Your task to perform on an android device: toggle translation in the chrome app Image 0: 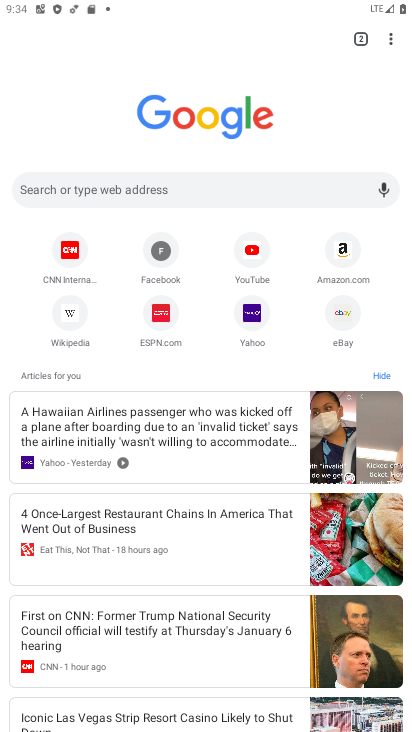
Step 0: press home button
Your task to perform on an android device: toggle translation in the chrome app Image 1: 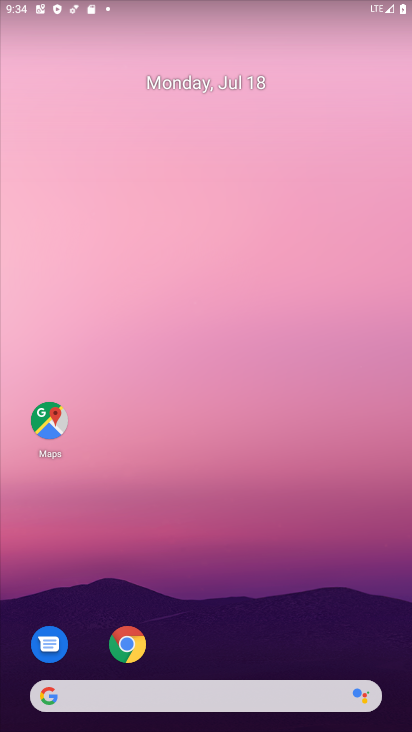
Step 1: drag from (219, 663) to (69, 0)
Your task to perform on an android device: toggle translation in the chrome app Image 2: 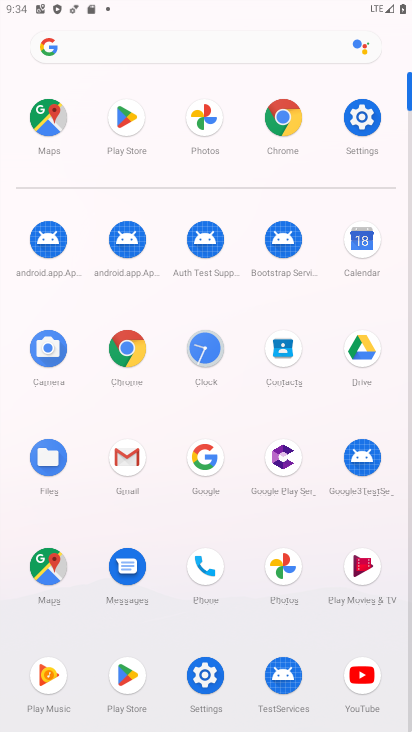
Step 2: click (275, 131)
Your task to perform on an android device: toggle translation in the chrome app Image 3: 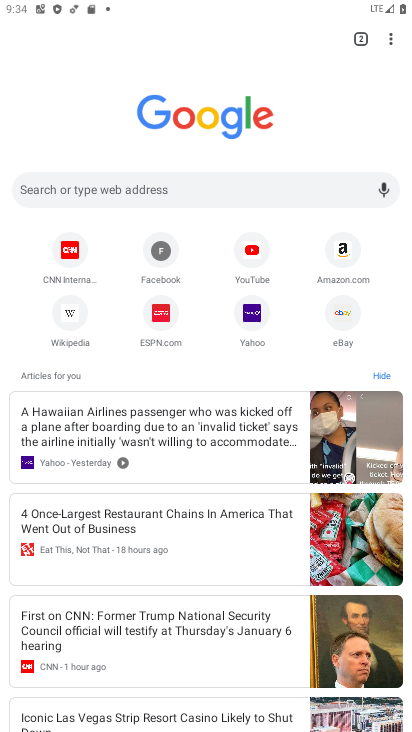
Step 3: click (384, 38)
Your task to perform on an android device: toggle translation in the chrome app Image 4: 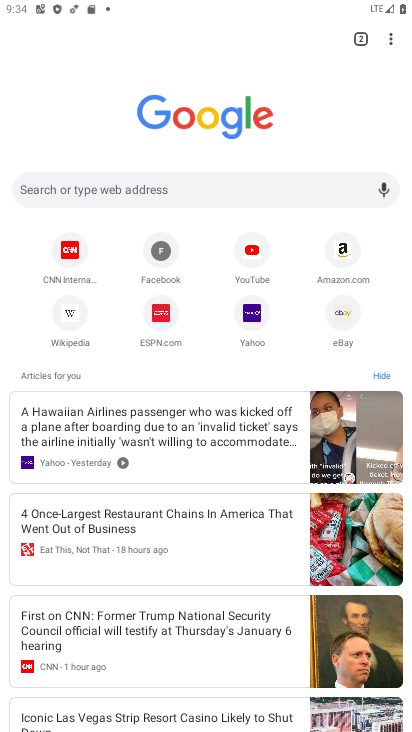
Step 4: drag from (395, 45) to (237, 324)
Your task to perform on an android device: toggle translation in the chrome app Image 5: 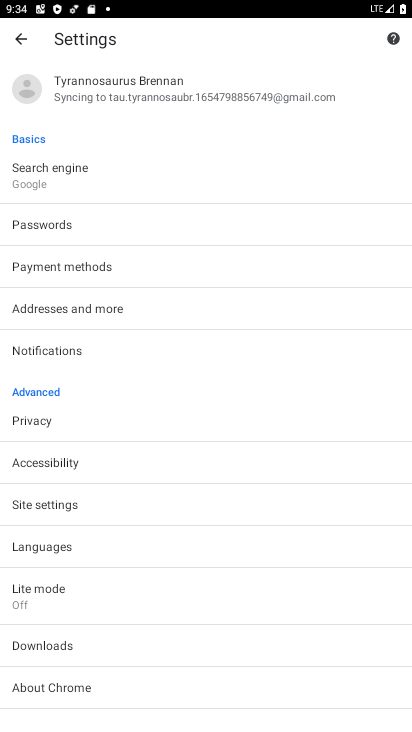
Step 5: click (71, 539)
Your task to perform on an android device: toggle translation in the chrome app Image 6: 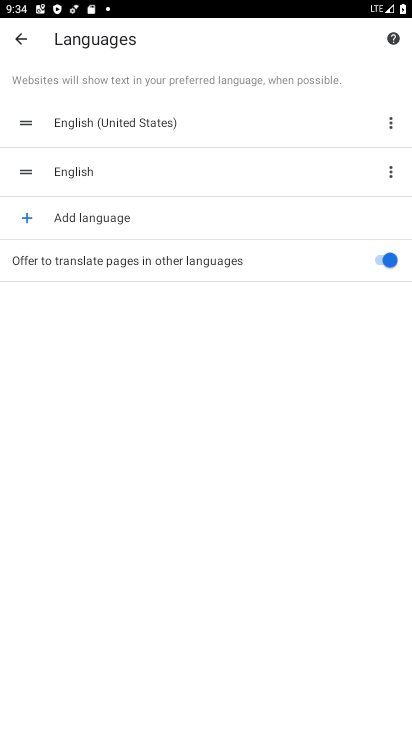
Step 6: click (377, 261)
Your task to perform on an android device: toggle translation in the chrome app Image 7: 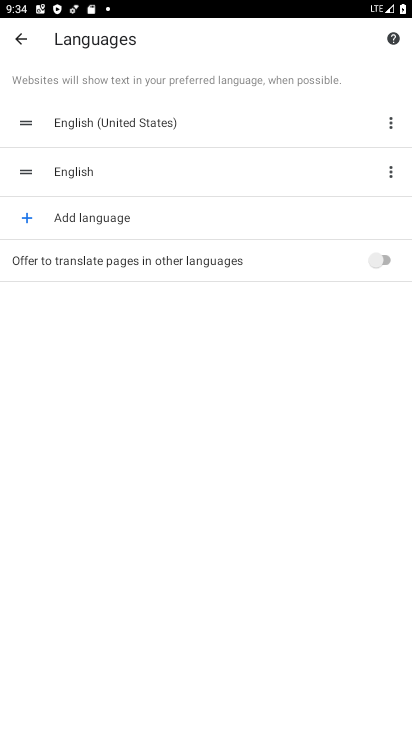
Step 7: task complete